Your task to perform on an android device: open app "PUBG MOBILE" Image 0: 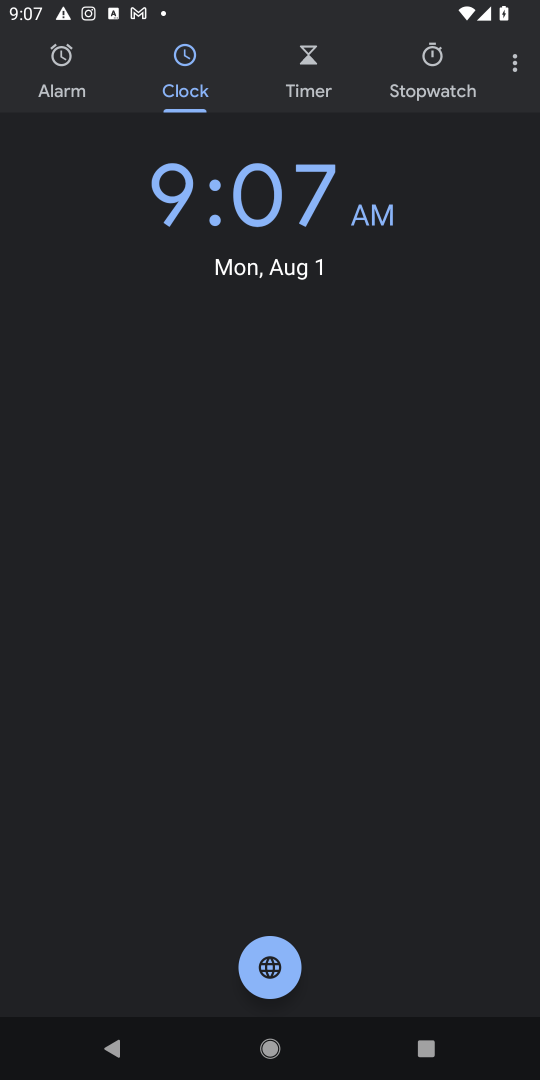
Step 0: press home button
Your task to perform on an android device: open app "PUBG MOBILE" Image 1: 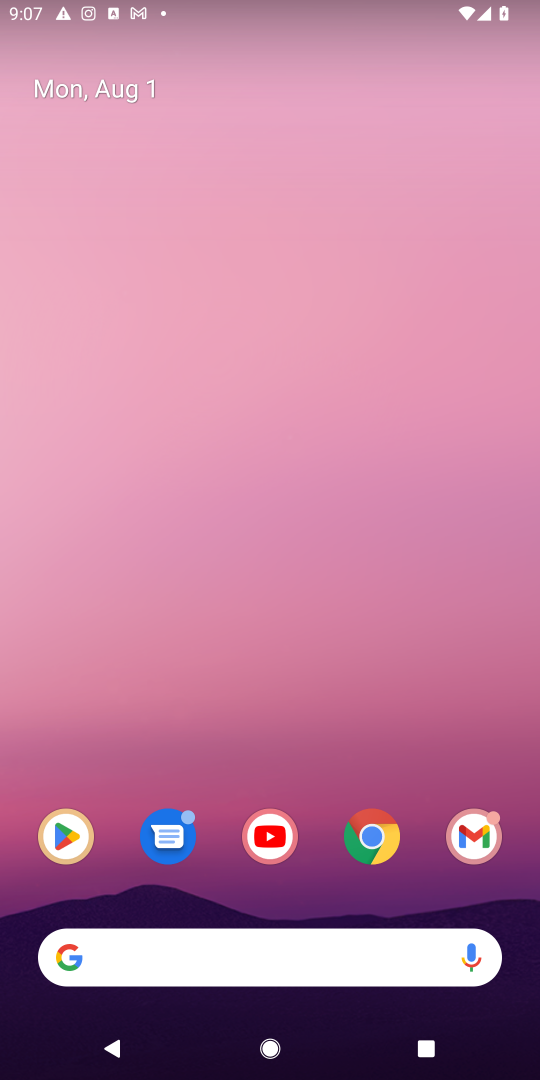
Step 1: click (60, 839)
Your task to perform on an android device: open app "PUBG MOBILE" Image 2: 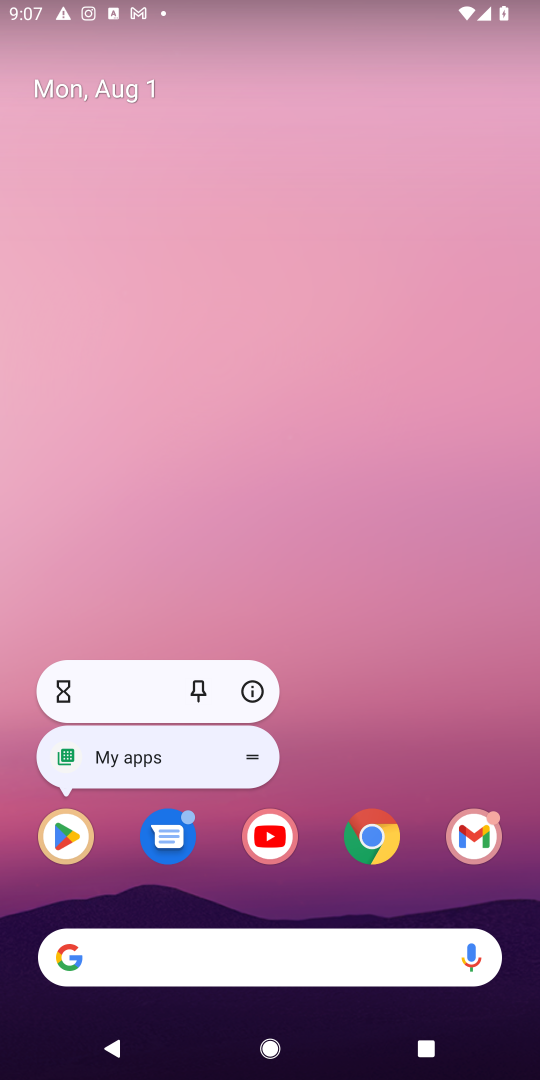
Step 2: click (60, 842)
Your task to perform on an android device: open app "PUBG MOBILE" Image 3: 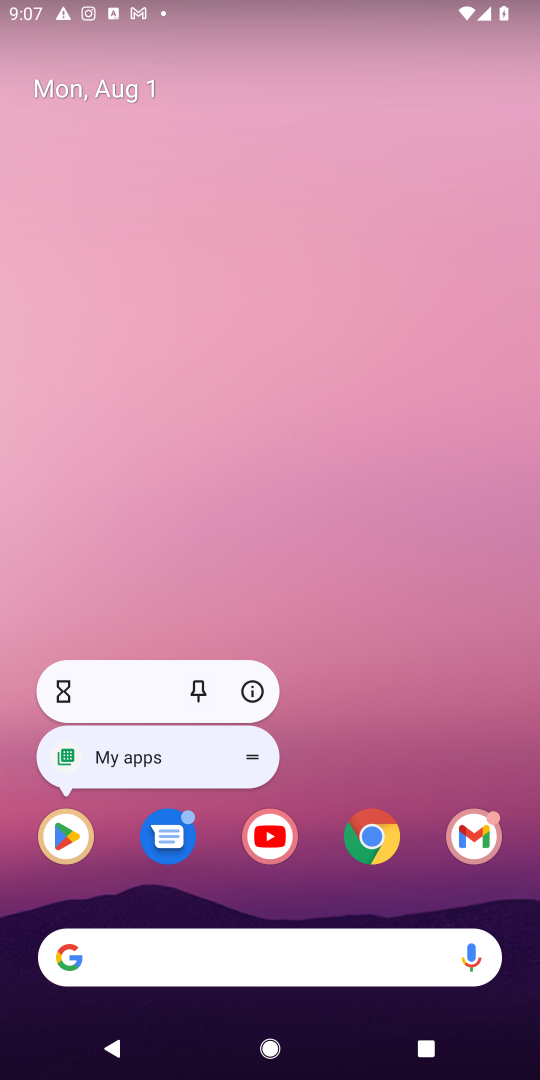
Step 3: click (66, 835)
Your task to perform on an android device: open app "PUBG MOBILE" Image 4: 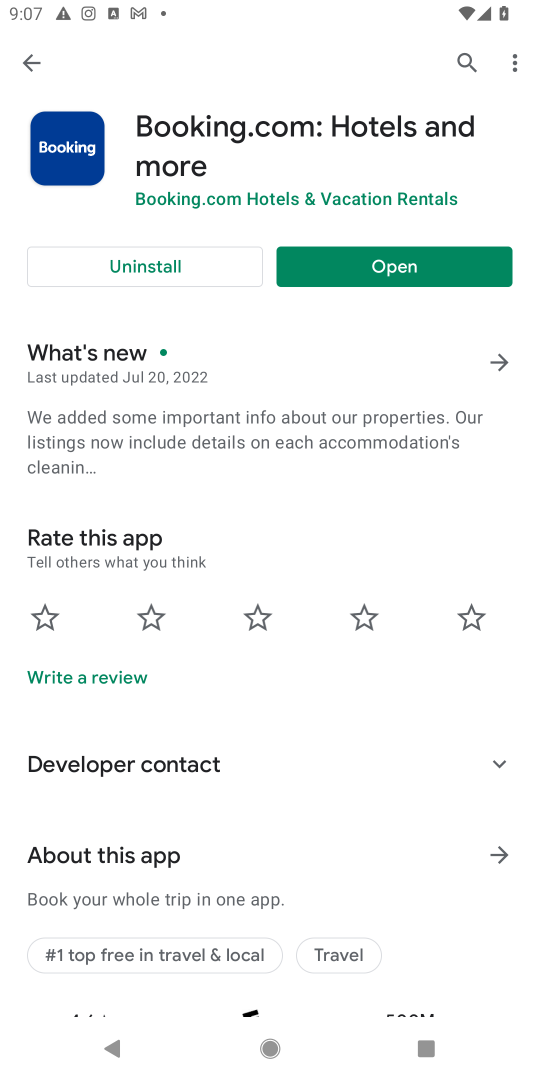
Step 4: click (469, 48)
Your task to perform on an android device: open app "PUBG MOBILE" Image 5: 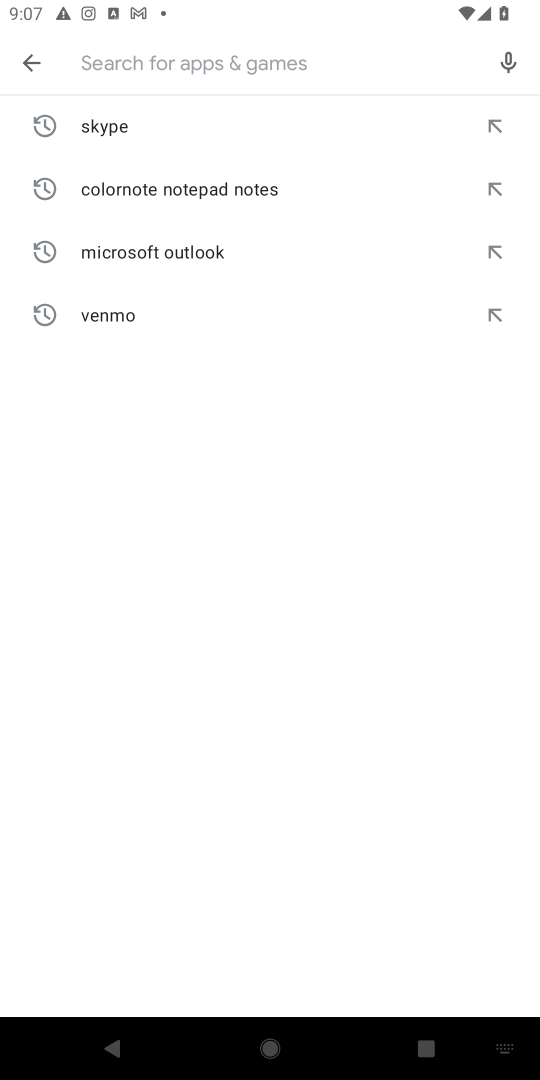
Step 5: type "PUBG MOBILE"
Your task to perform on an android device: open app "PUBG MOBILE" Image 6: 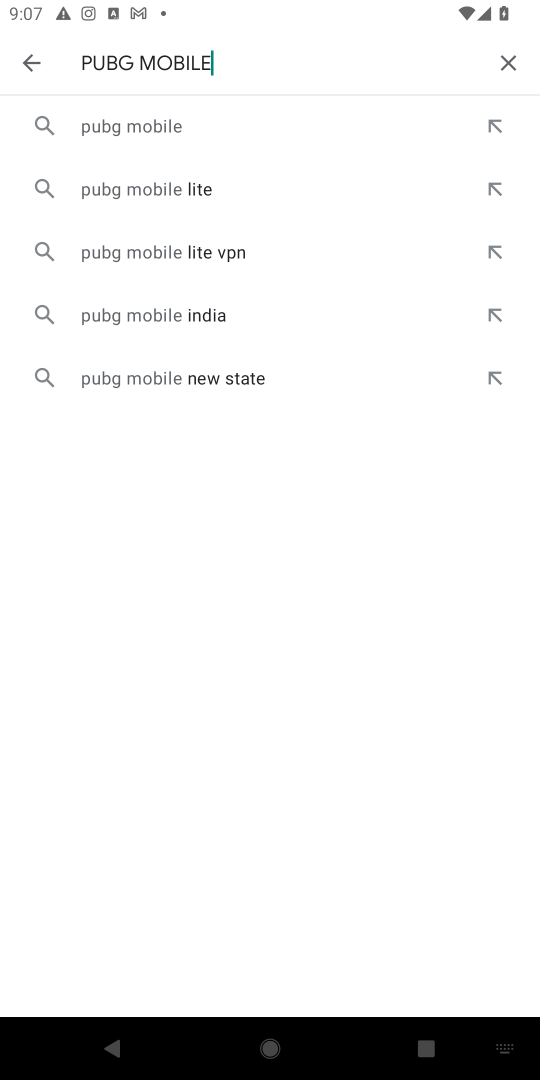
Step 6: click (167, 124)
Your task to perform on an android device: open app "PUBG MOBILE" Image 7: 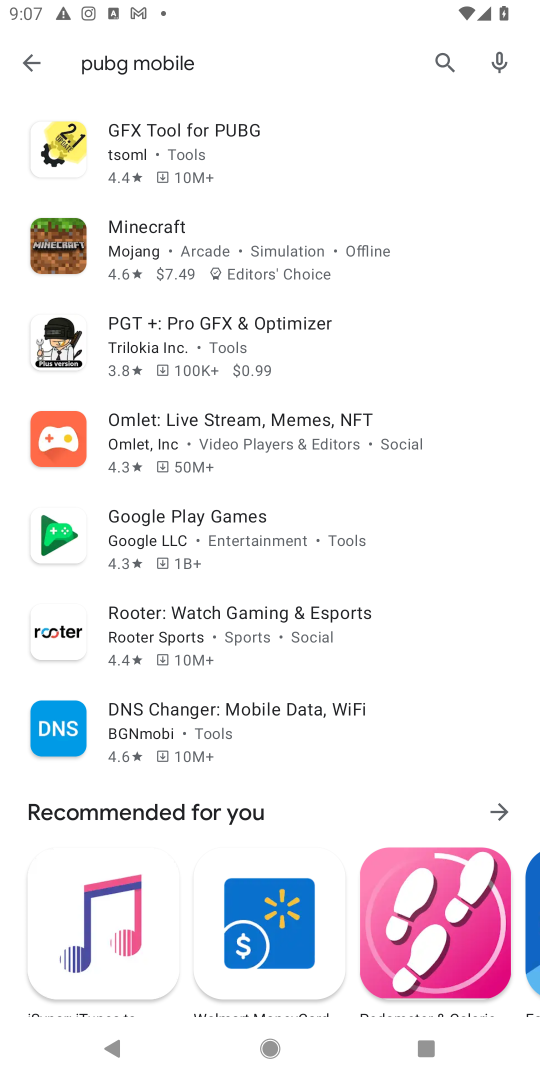
Step 7: task complete